Your task to perform on an android device: Find coffee shops on Maps Image 0: 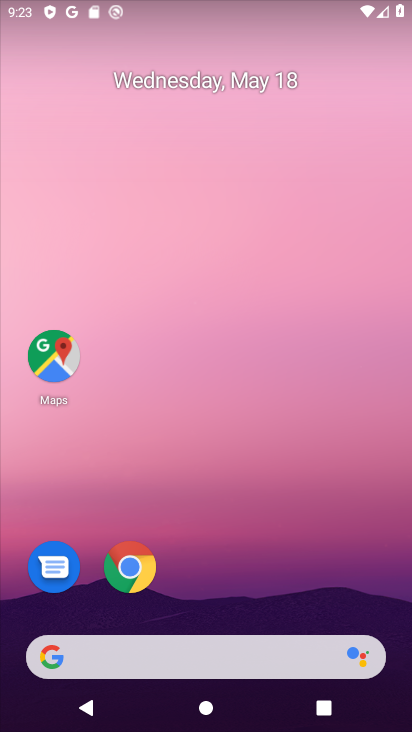
Step 0: click (43, 376)
Your task to perform on an android device: Find coffee shops on Maps Image 1: 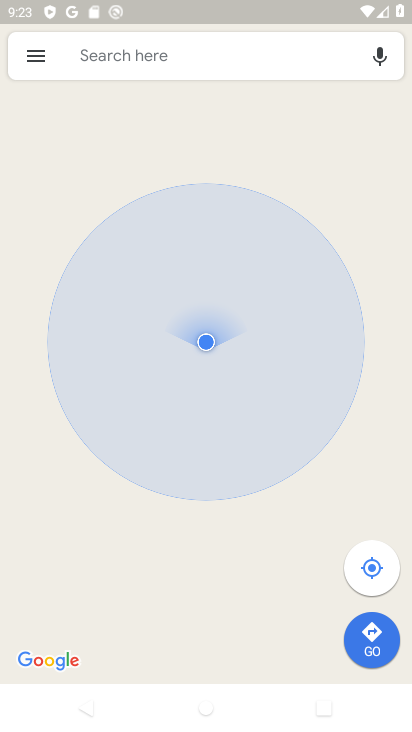
Step 1: click (197, 47)
Your task to perform on an android device: Find coffee shops on Maps Image 2: 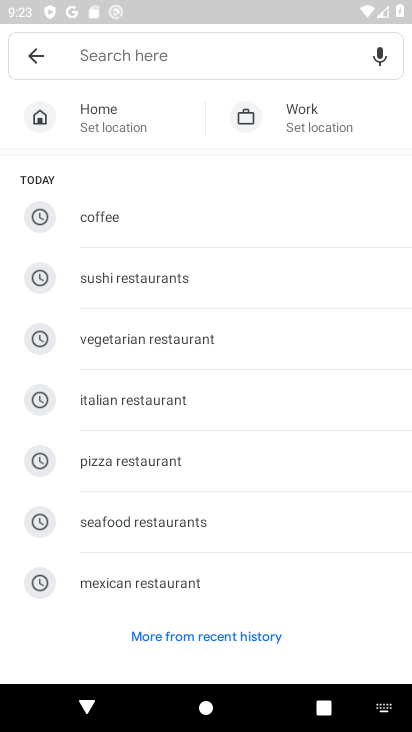
Step 2: type "coffee shops"
Your task to perform on an android device: Find coffee shops on Maps Image 3: 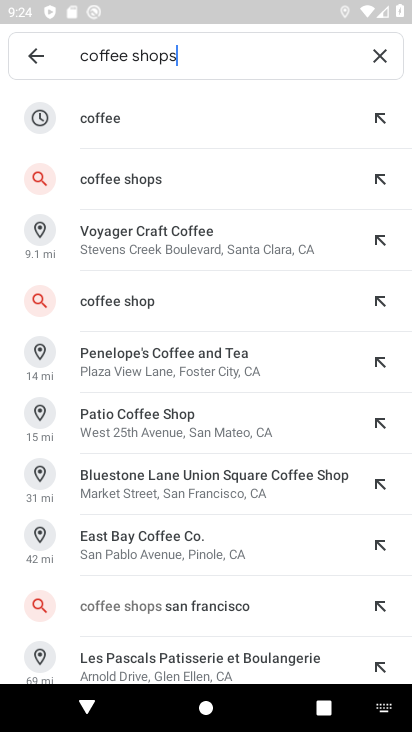
Step 3: click (172, 174)
Your task to perform on an android device: Find coffee shops on Maps Image 4: 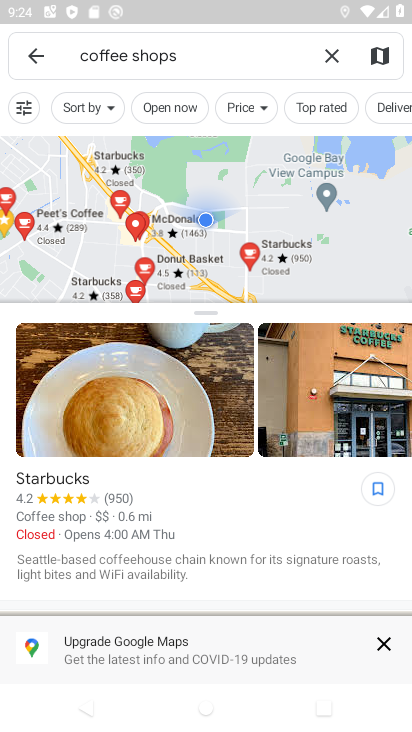
Step 4: task complete